Your task to perform on an android device: turn pop-ups off in chrome Image 0: 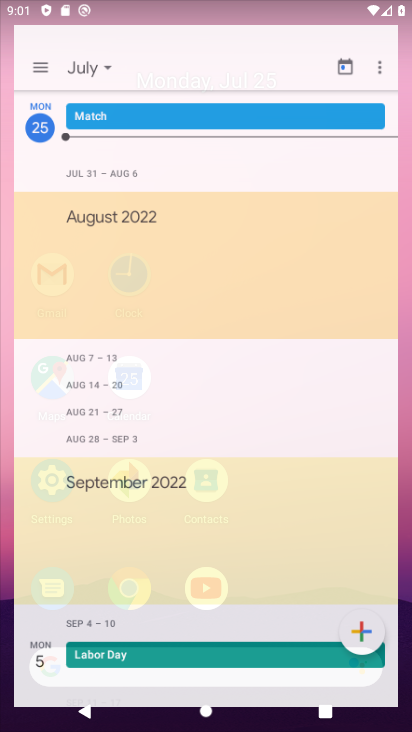
Step 0: click (208, 480)
Your task to perform on an android device: turn pop-ups off in chrome Image 1: 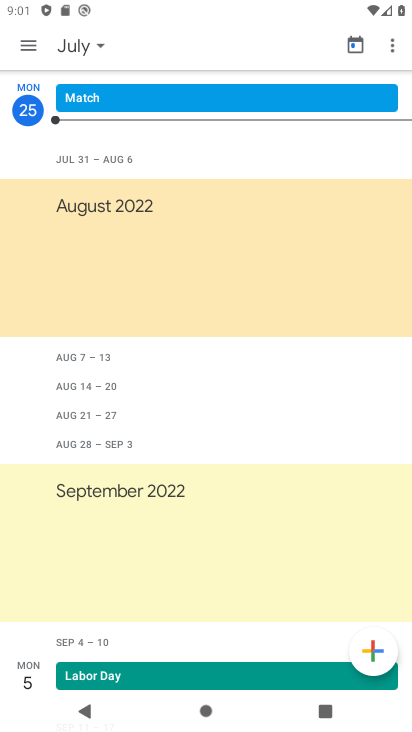
Step 1: press home button
Your task to perform on an android device: turn pop-ups off in chrome Image 2: 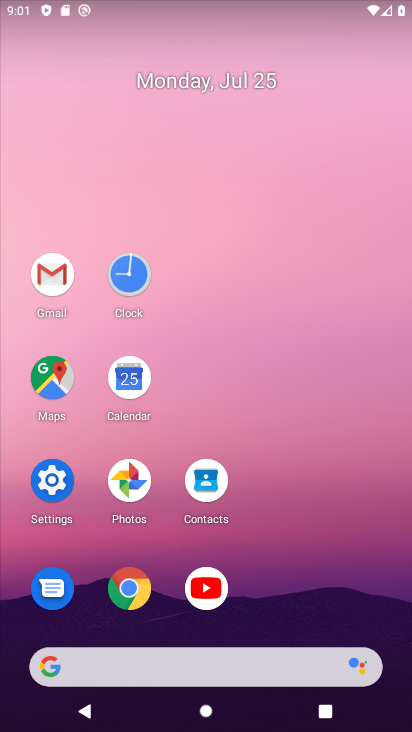
Step 2: click (126, 592)
Your task to perform on an android device: turn pop-ups off in chrome Image 3: 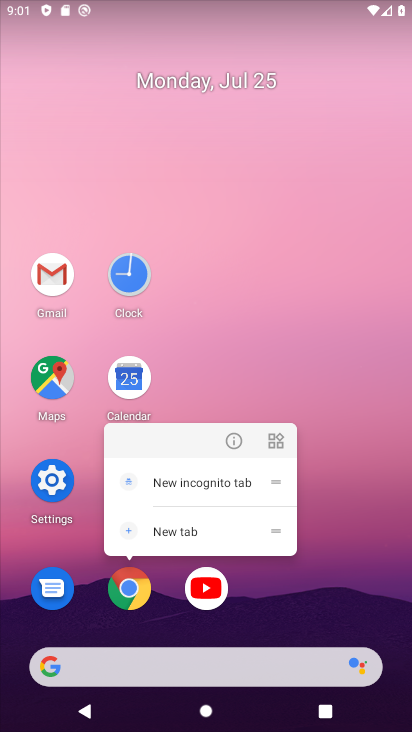
Step 3: click (126, 594)
Your task to perform on an android device: turn pop-ups off in chrome Image 4: 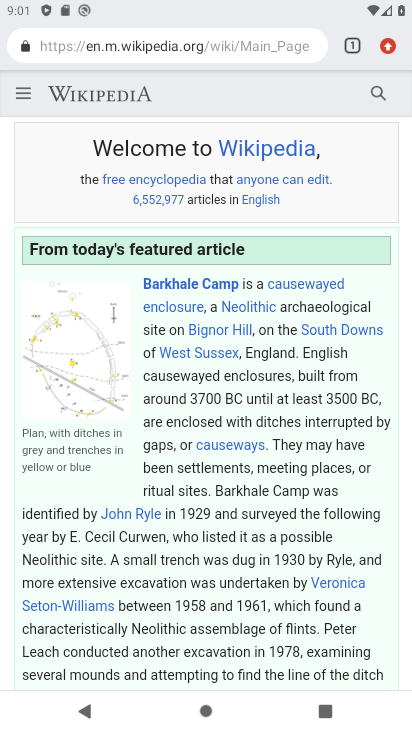
Step 4: click (387, 40)
Your task to perform on an android device: turn pop-ups off in chrome Image 5: 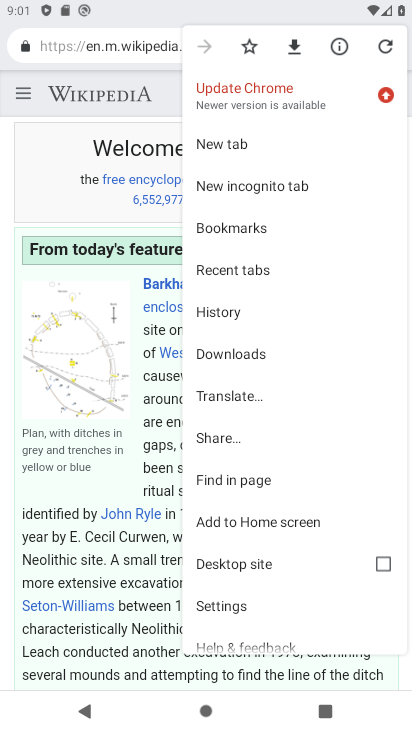
Step 5: click (229, 601)
Your task to perform on an android device: turn pop-ups off in chrome Image 6: 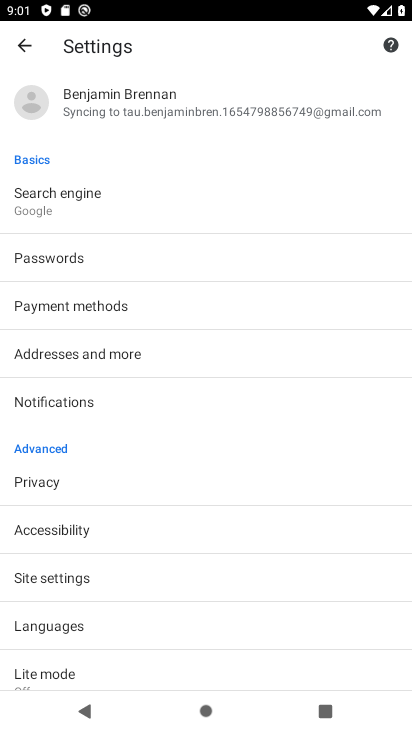
Step 6: click (55, 579)
Your task to perform on an android device: turn pop-ups off in chrome Image 7: 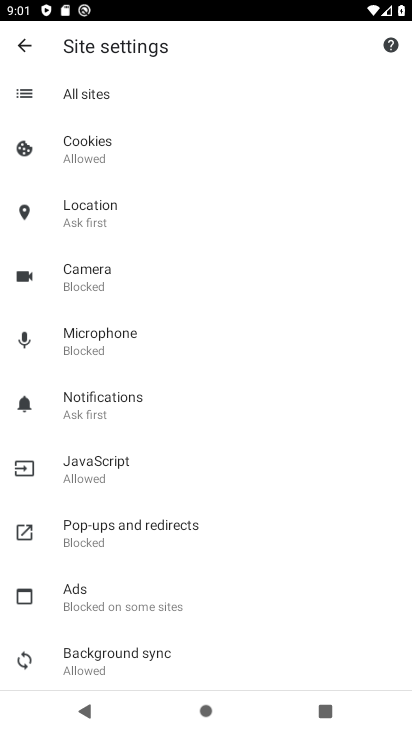
Step 7: click (92, 519)
Your task to perform on an android device: turn pop-ups off in chrome Image 8: 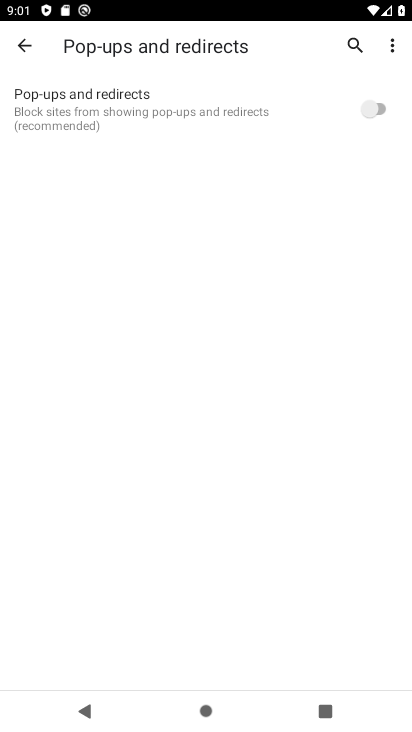
Step 8: task complete